Your task to perform on an android device: Do I have any events today? Image 0: 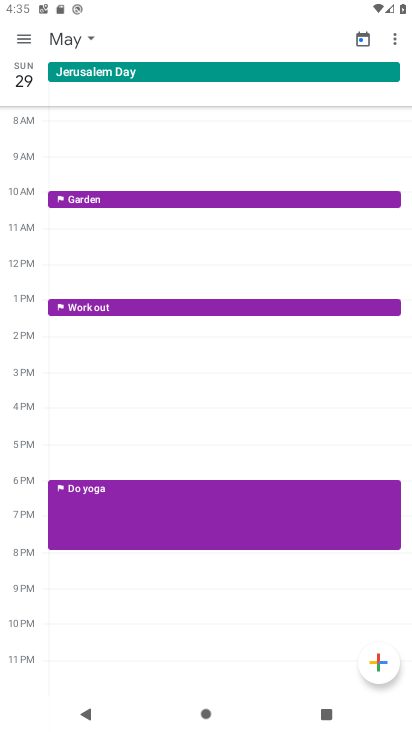
Step 0: press home button
Your task to perform on an android device: Do I have any events today? Image 1: 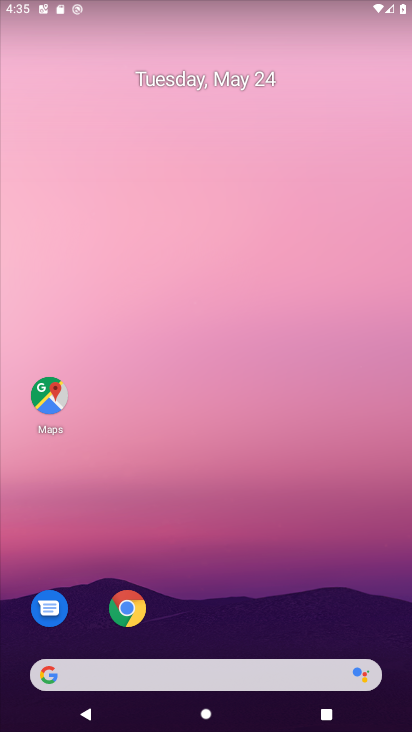
Step 1: drag from (184, 664) to (214, 279)
Your task to perform on an android device: Do I have any events today? Image 2: 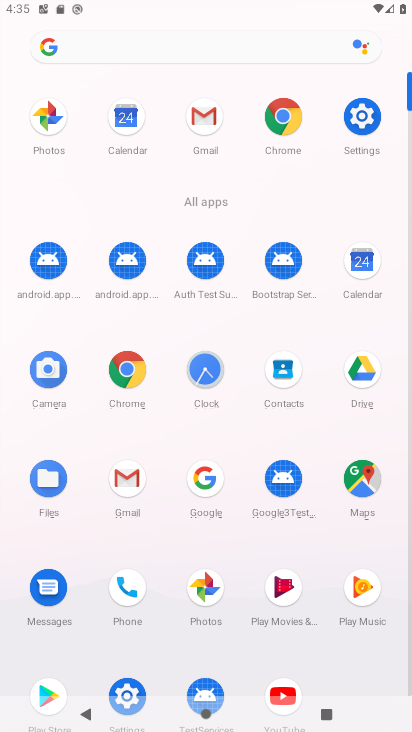
Step 2: click (358, 250)
Your task to perform on an android device: Do I have any events today? Image 3: 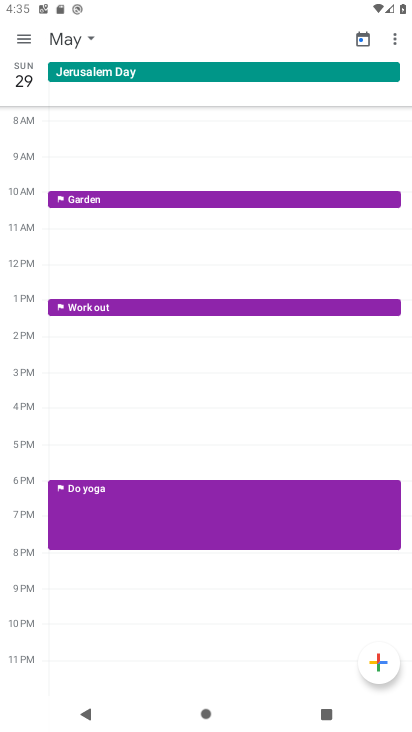
Step 3: click (64, 41)
Your task to perform on an android device: Do I have any events today? Image 4: 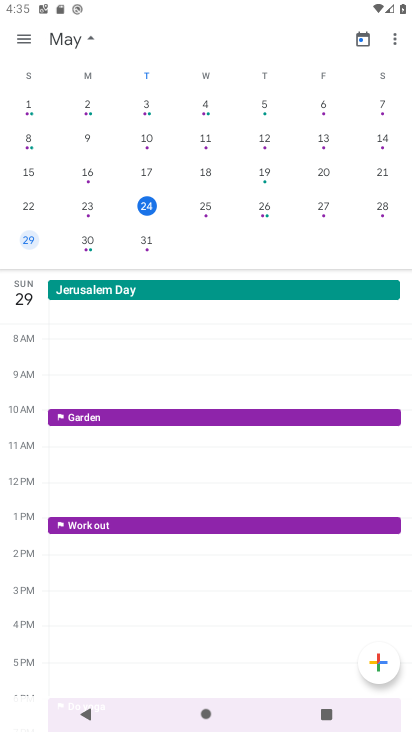
Step 4: click (202, 213)
Your task to perform on an android device: Do I have any events today? Image 5: 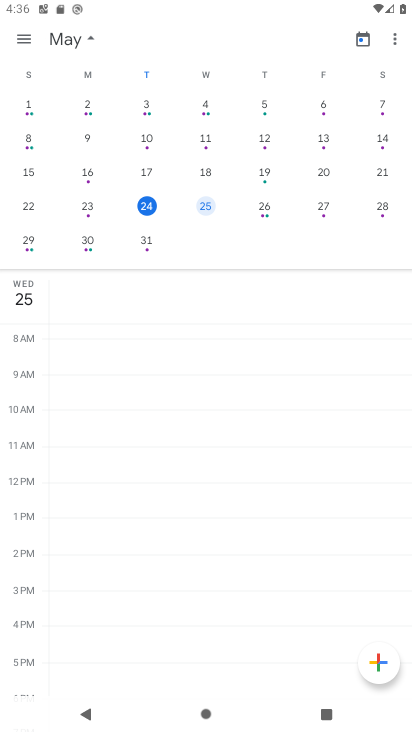
Step 5: task complete